Your task to perform on an android device: Go to Amazon Image 0: 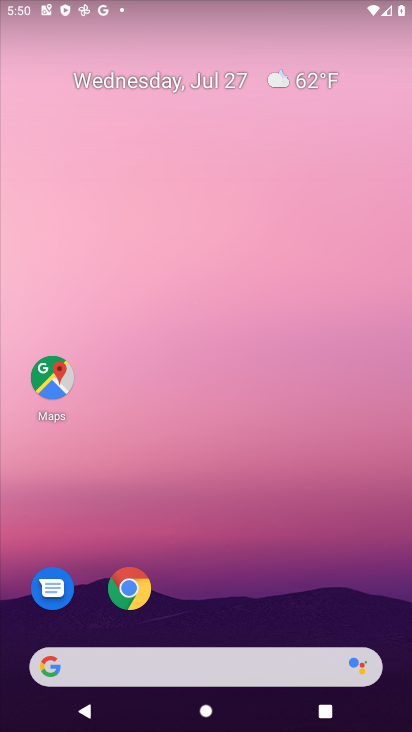
Step 0: click (132, 595)
Your task to perform on an android device: Go to Amazon Image 1: 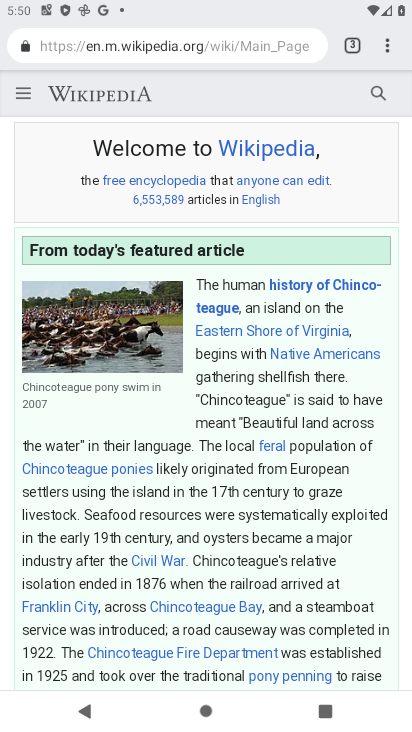
Step 1: click (356, 37)
Your task to perform on an android device: Go to Amazon Image 2: 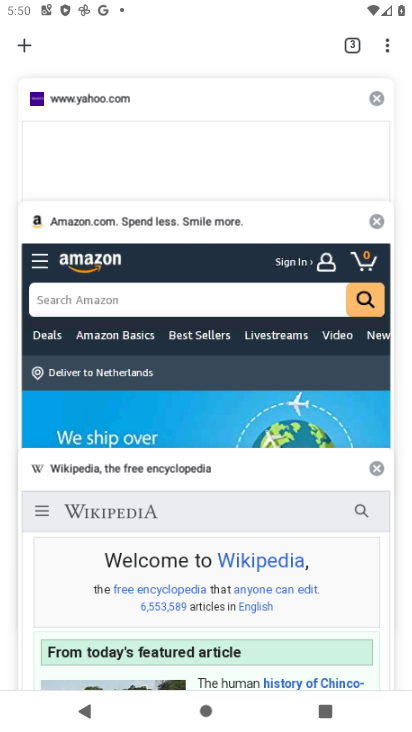
Step 2: click (377, 467)
Your task to perform on an android device: Go to Amazon Image 3: 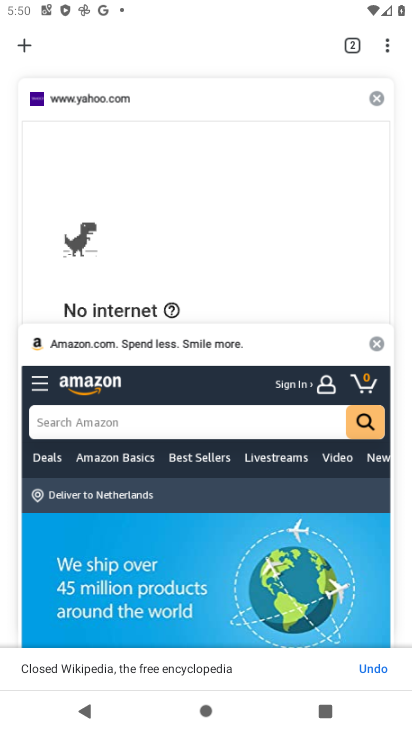
Step 3: click (214, 339)
Your task to perform on an android device: Go to Amazon Image 4: 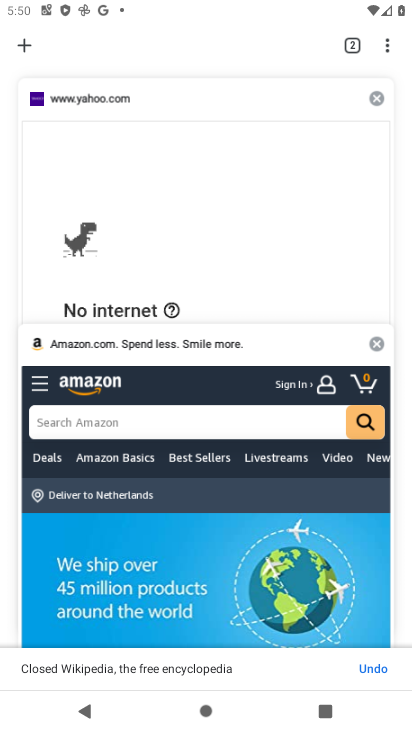
Step 4: click (214, 339)
Your task to perform on an android device: Go to Amazon Image 5: 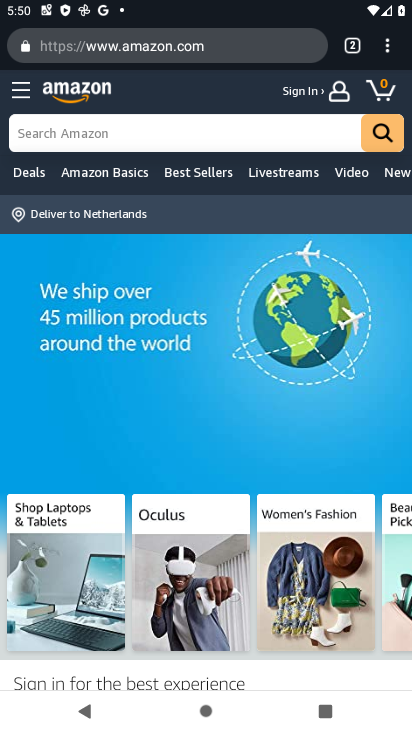
Step 5: task complete